Your task to perform on an android device: set the stopwatch Image 0: 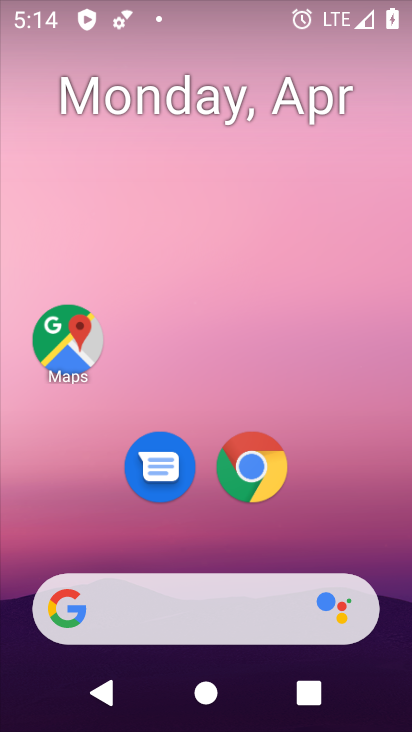
Step 0: drag from (265, 608) to (280, 0)
Your task to perform on an android device: set the stopwatch Image 1: 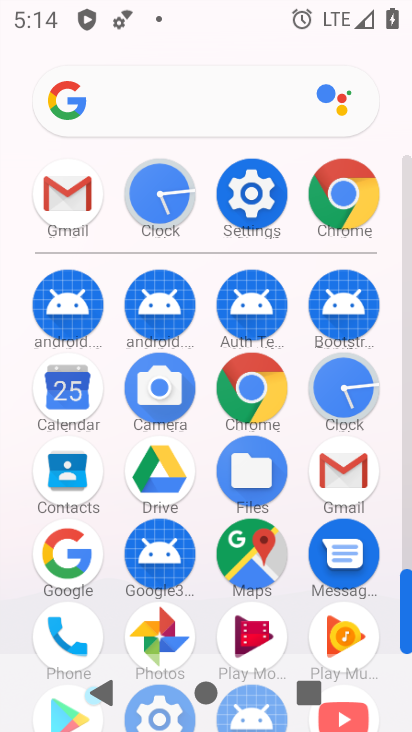
Step 1: drag from (298, 558) to (297, 242)
Your task to perform on an android device: set the stopwatch Image 2: 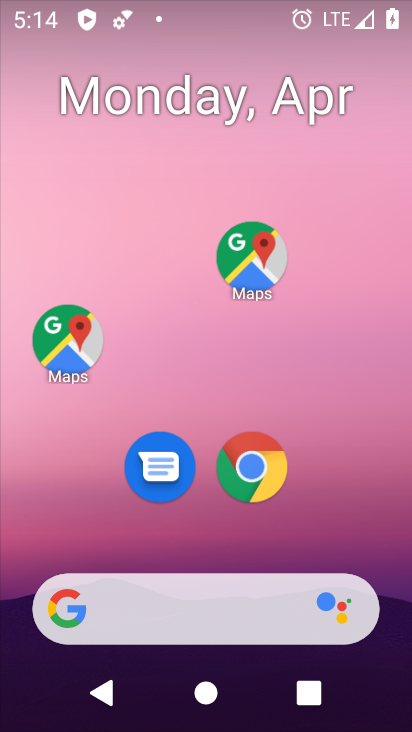
Step 2: drag from (345, 546) to (255, 3)
Your task to perform on an android device: set the stopwatch Image 3: 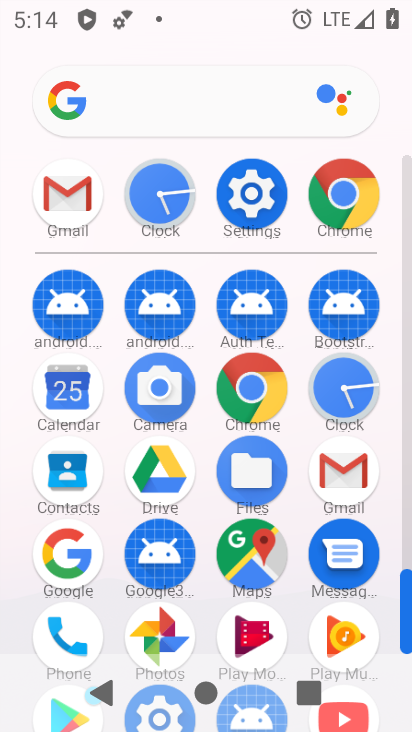
Step 3: click (355, 379)
Your task to perform on an android device: set the stopwatch Image 4: 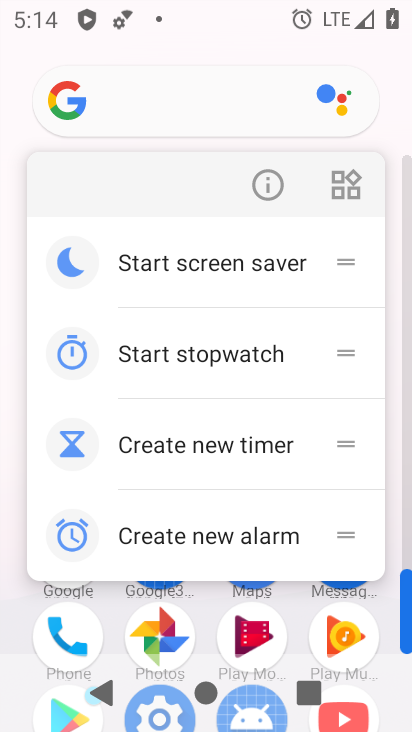
Step 4: click (306, 605)
Your task to perform on an android device: set the stopwatch Image 5: 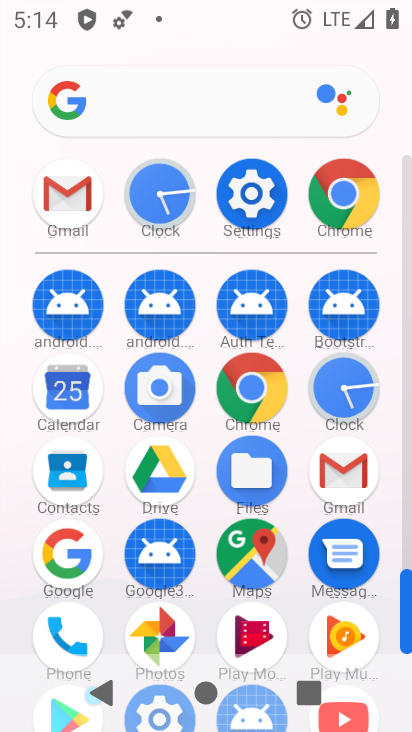
Step 5: click (340, 392)
Your task to perform on an android device: set the stopwatch Image 6: 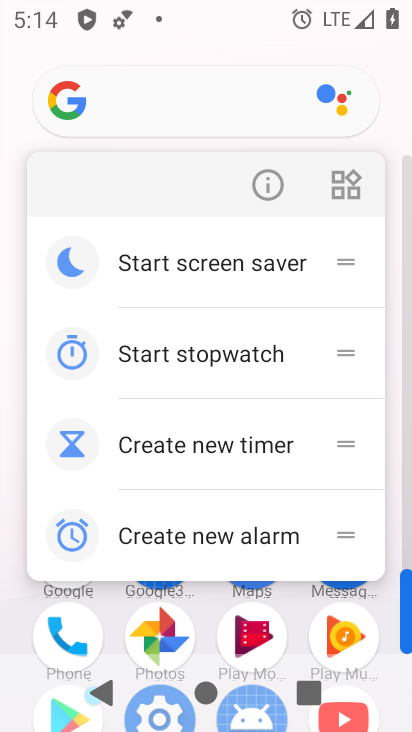
Step 6: click (298, 619)
Your task to perform on an android device: set the stopwatch Image 7: 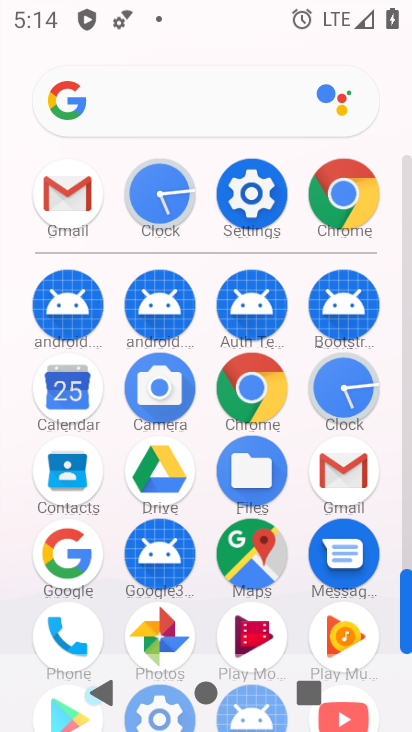
Step 7: click (332, 405)
Your task to perform on an android device: set the stopwatch Image 8: 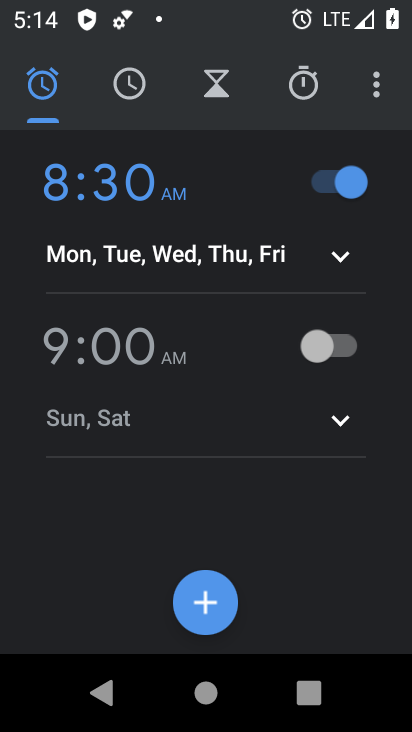
Step 8: click (125, 79)
Your task to perform on an android device: set the stopwatch Image 9: 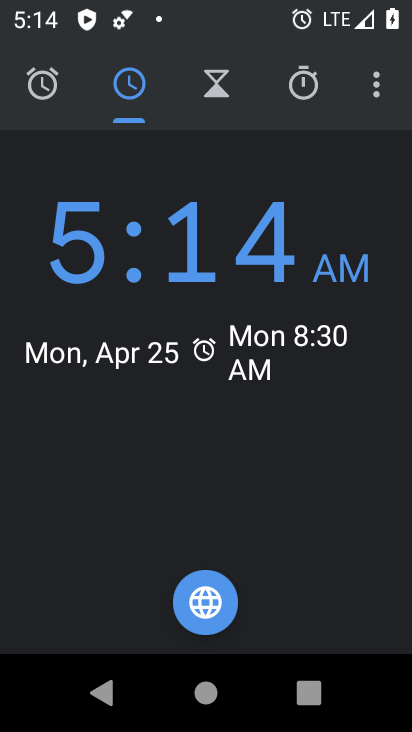
Step 9: click (310, 91)
Your task to perform on an android device: set the stopwatch Image 10: 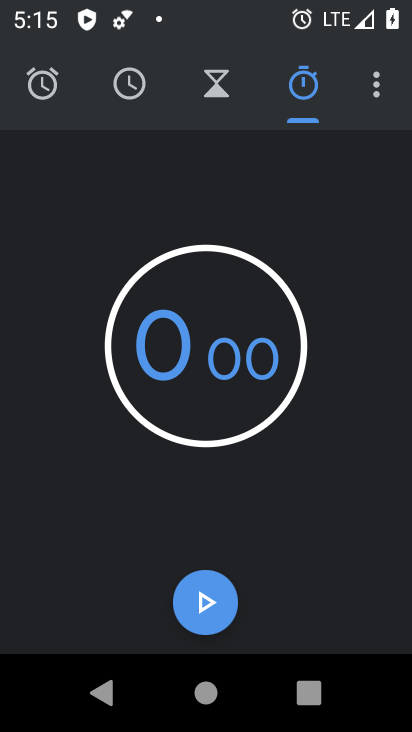
Step 10: click (199, 582)
Your task to perform on an android device: set the stopwatch Image 11: 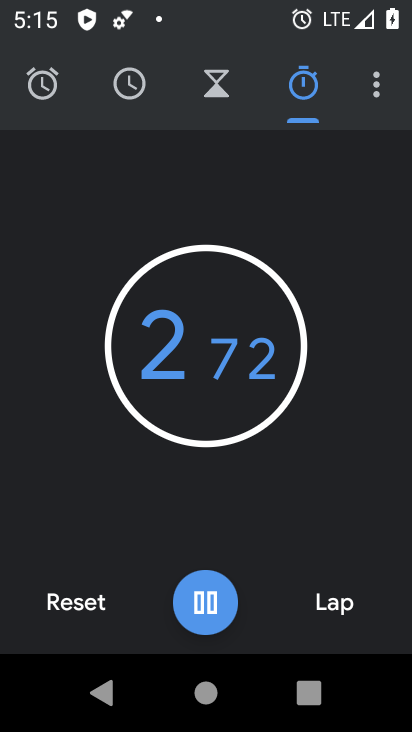
Step 11: task complete